Your task to perform on an android device: turn on wifi Image 0: 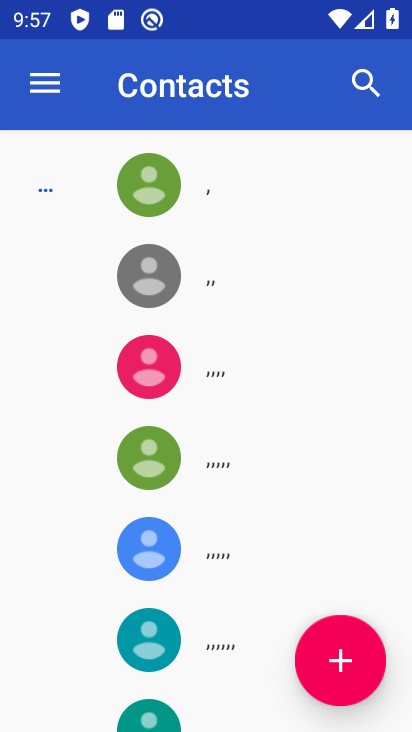
Step 0: press home button
Your task to perform on an android device: turn on wifi Image 1: 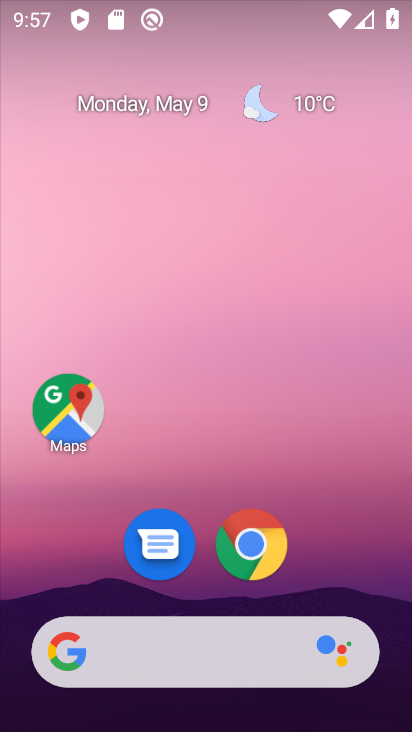
Step 1: drag from (388, 658) to (388, 374)
Your task to perform on an android device: turn on wifi Image 2: 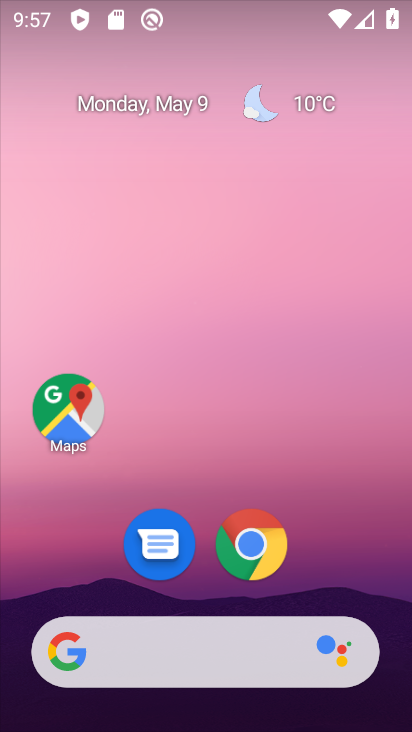
Step 2: drag from (390, 641) to (402, 231)
Your task to perform on an android device: turn on wifi Image 3: 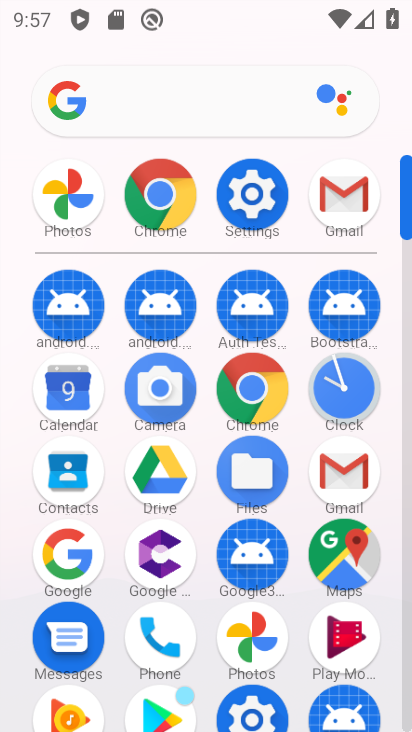
Step 3: click (250, 195)
Your task to perform on an android device: turn on wifi Image 4: 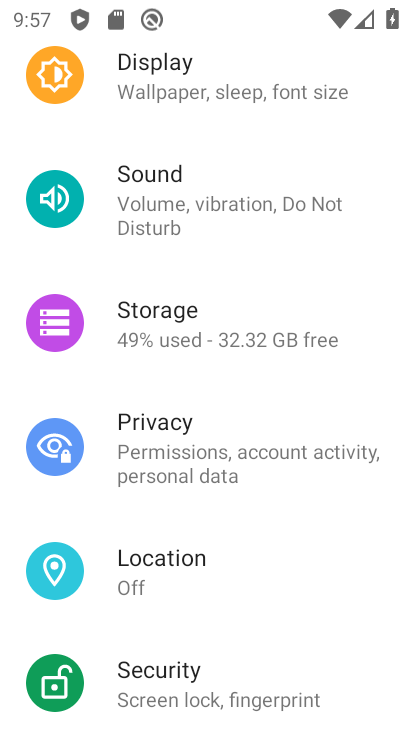
Step 4: drag from (351, 124) to (309, 556)
Your task to perform on an android device: turn on wifi Image 5: 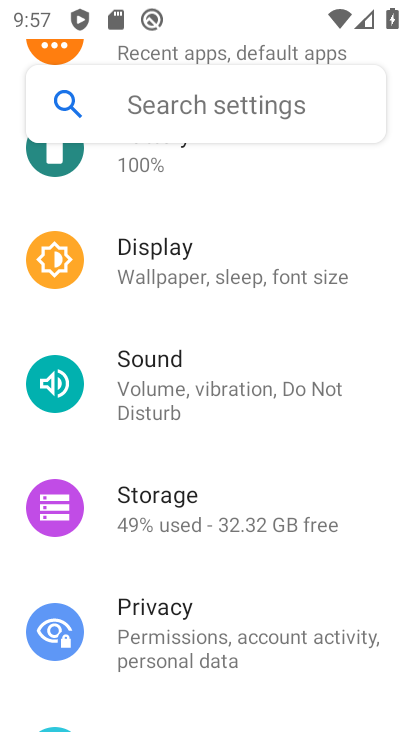
Step 5: drag from (342, 167) to (308, 589)
Your task to perform on an android device: turn on wifi Image 6: 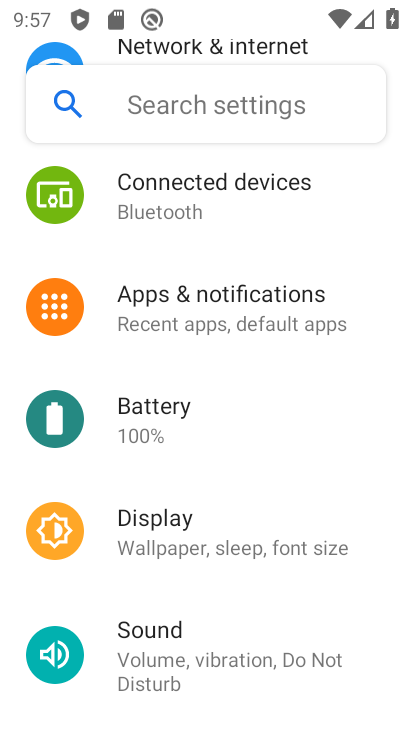
Step 6: drag from (362, 186) to (309, 570)
Your task to perform on an android device: turn on wifi Image 7: 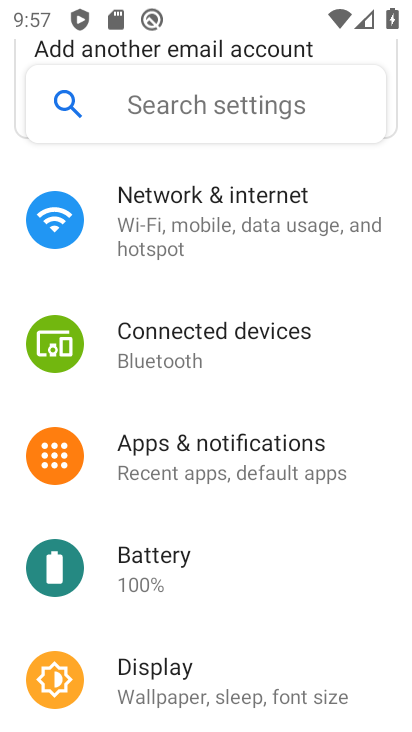
Step 7: drag from (348, 281) to (331, 565)
Your task to perform on an android device: turn on wifi Image 8: 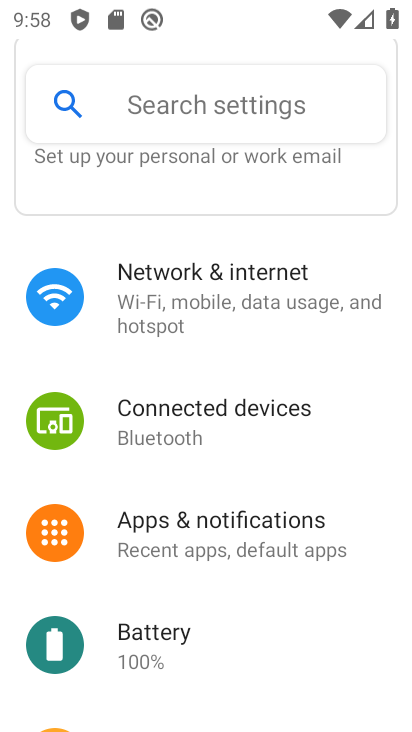
Step 8: click (158, 275)
Your task to perform on an android device: turn on wifi Image 9: 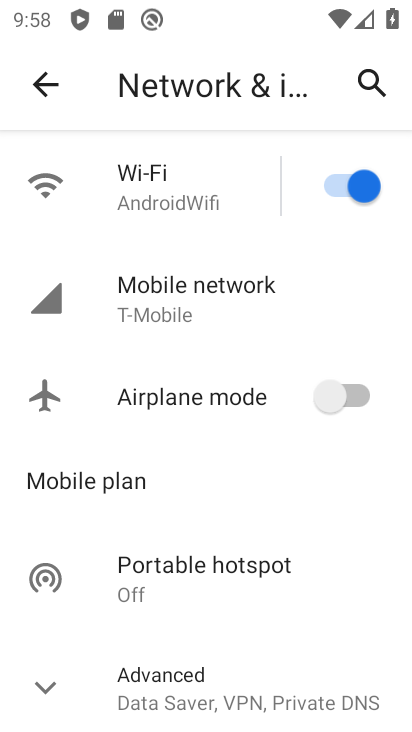
Step 9: task complete